Your task to perform on an android device: open a bookmark in the chrome app Image 0: 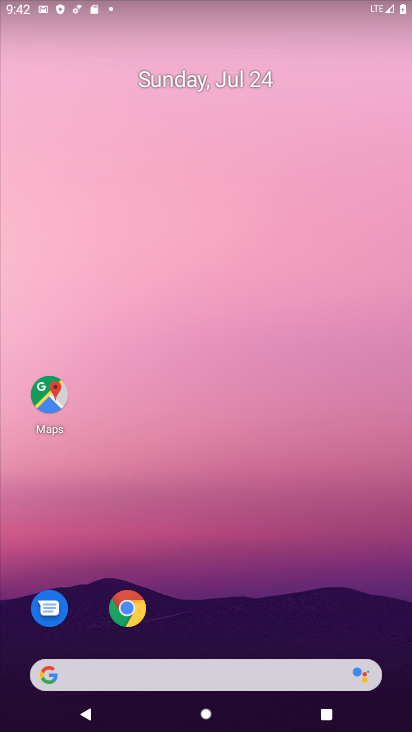
Step 0: click (122, 603)
Your task to perform on an android device: open a bookmark in the chrome app Image 1: 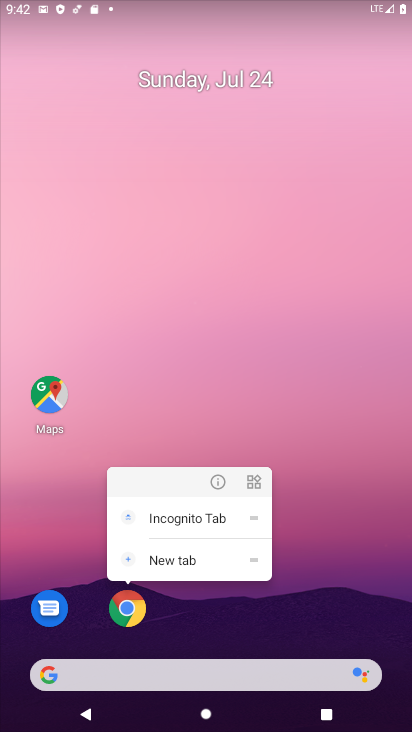
Step 1: click (127, 601)
Your task to perform on an android device: open a bookmark in the chrome app Image 2: 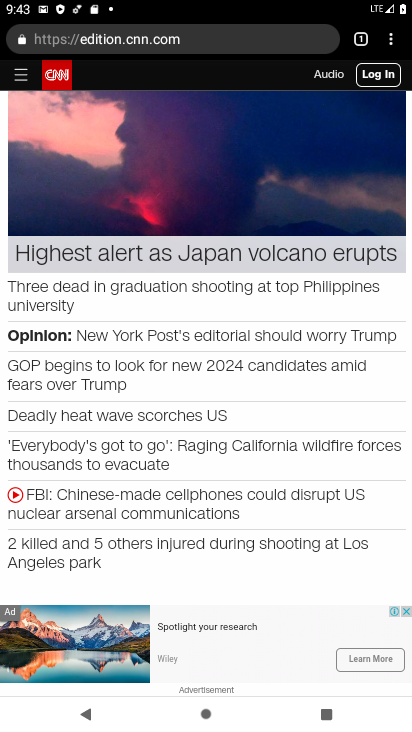
Step 2: click (390, 37)
Your task to perform on an android device: open a bookmark in the chrome app Image 3: 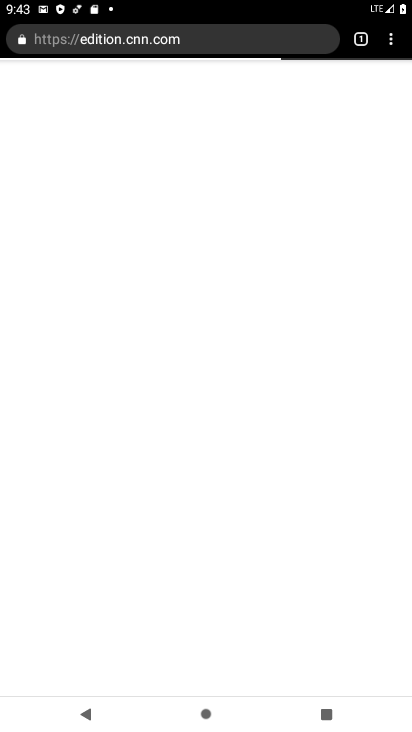
Step 3: click (388, 39)
Your task to perform on an android device: open a bookmark in the chrome app Image 4: 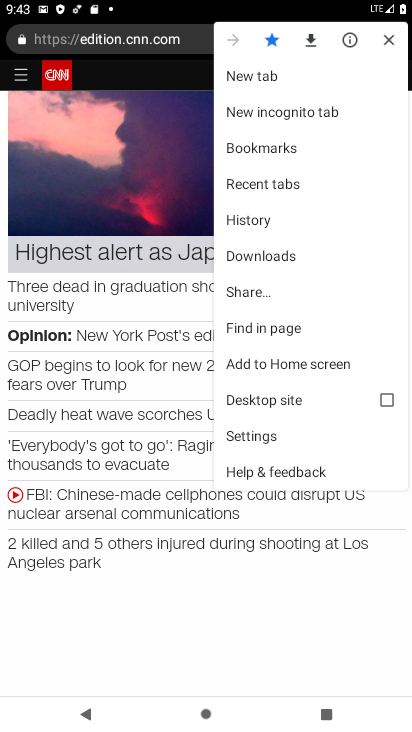
Step 4: click (296, 148)
Your task to perform on an android device: open a bookmark in the chrome app Image 5: 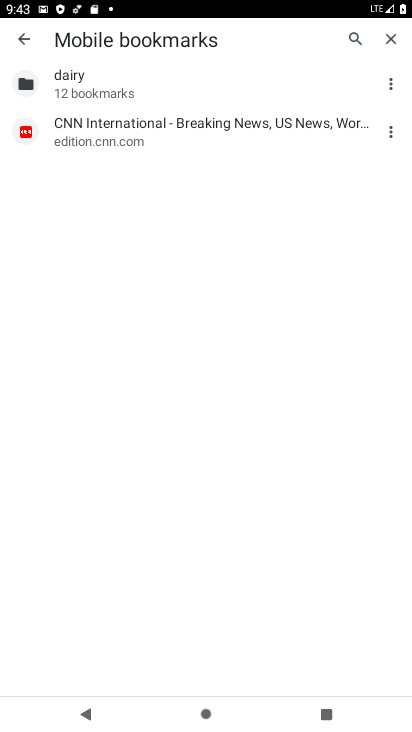
Step 5: task complete